Your task to perform on an android device: Go to Maps Image 0: 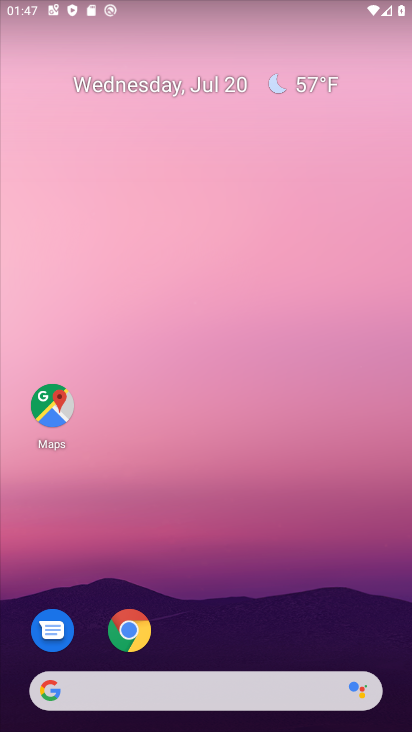
Step 0: drag from (283, 535) to (255, 36)
Your task to perform on an android device: Go to Maps Image 1: 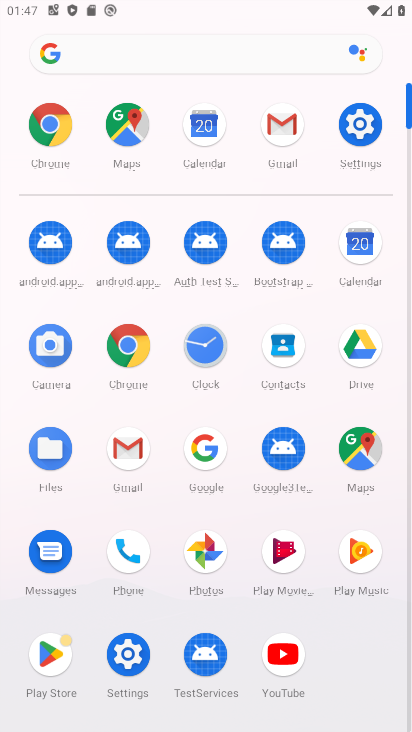
Step 1: click (370, 456)
Your task to perform on an android device: Go to Maps Image 2: 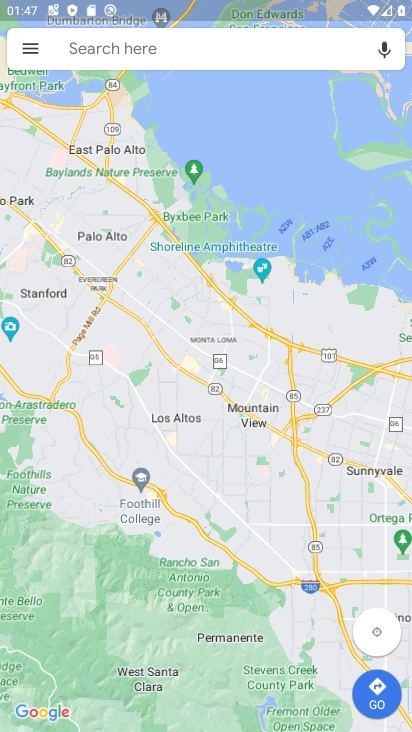
Step 2: task complete